Your task to perform on an android device: Go to internet settings Image 0: 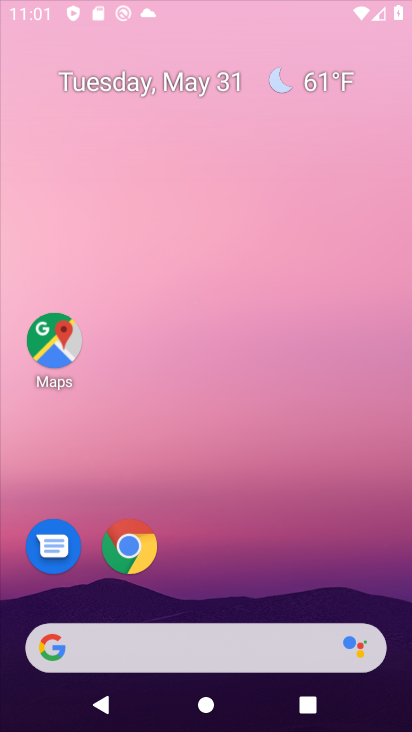
Step 0: drag from (194, 37) to (251, 3)
Your task to perform on an android device: Go to internet settings Image 1: 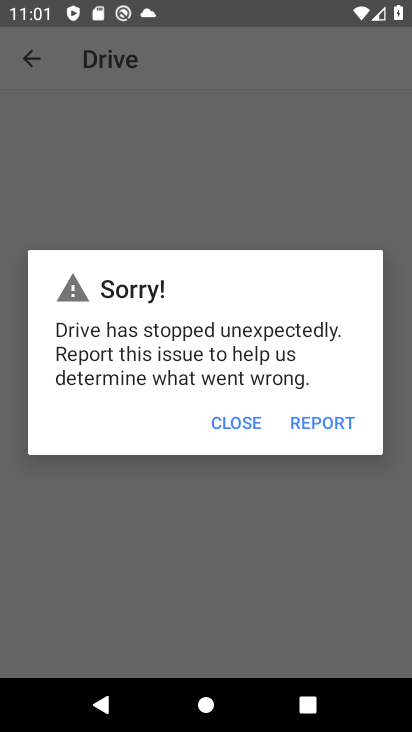
Step 1: press home button
Your task to perform on an android device: Go to internet settings Image 2: 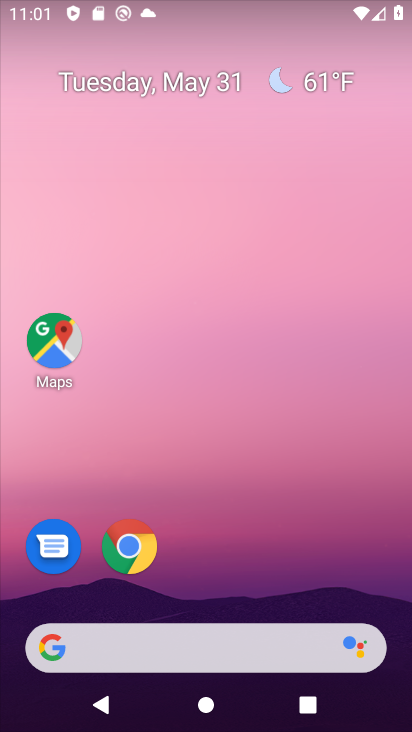
Step 2: drag from (197, 617) to (234, 8)
Your task to perform on an android device: Go to internet settings Image 3: 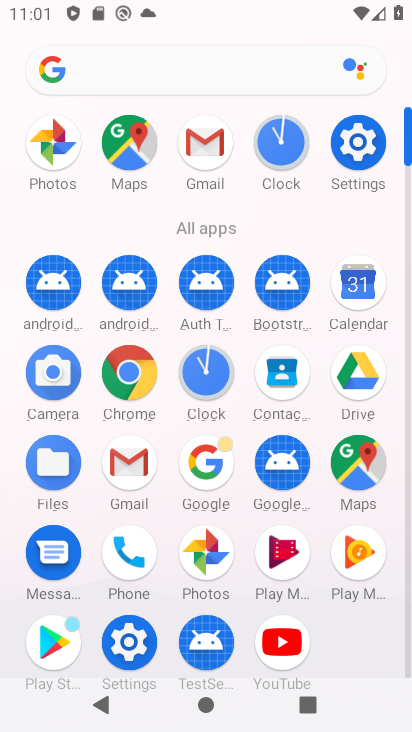
Step 3: click (352, 159)
Your task to perform on an android device: Go to internet settings Image 4: 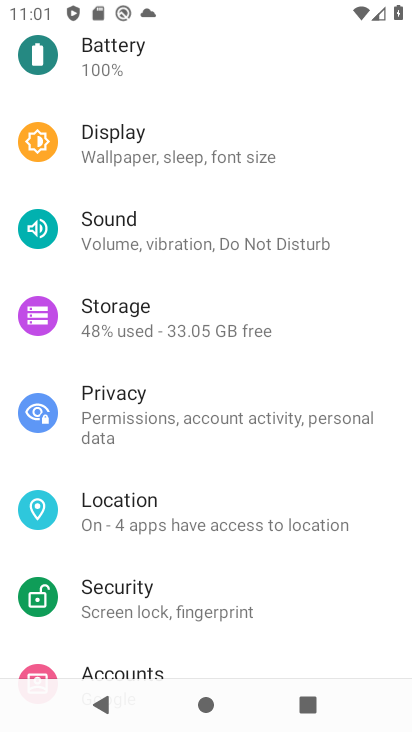
Step 4: drag from (261, 163) to (216, 667)
Your task to perform on an android device: Go to internet settings Image 5: 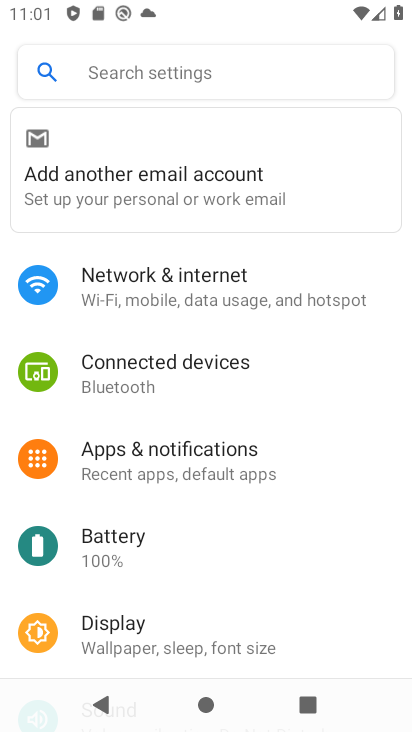
Step 5: click (164, 302)
Your task to perform on an android device: Go to internet settings Image 6: 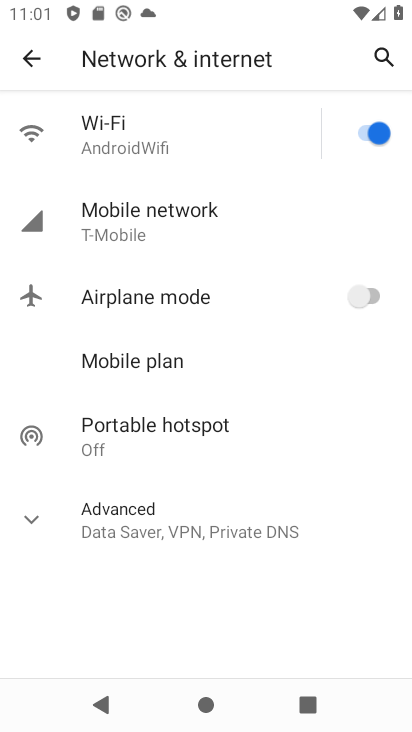
Step 6: click (203, 229)
Your task to perform on an android device: Go to internet settings Image 7: 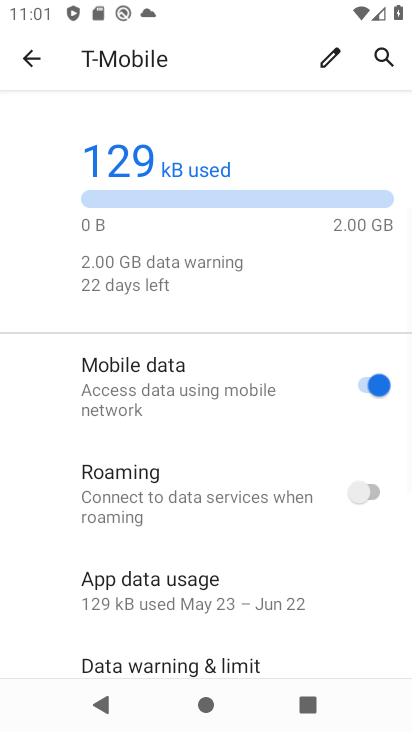
Step 7: task complete